Your task to perform on an android device: Open Google Image 0: 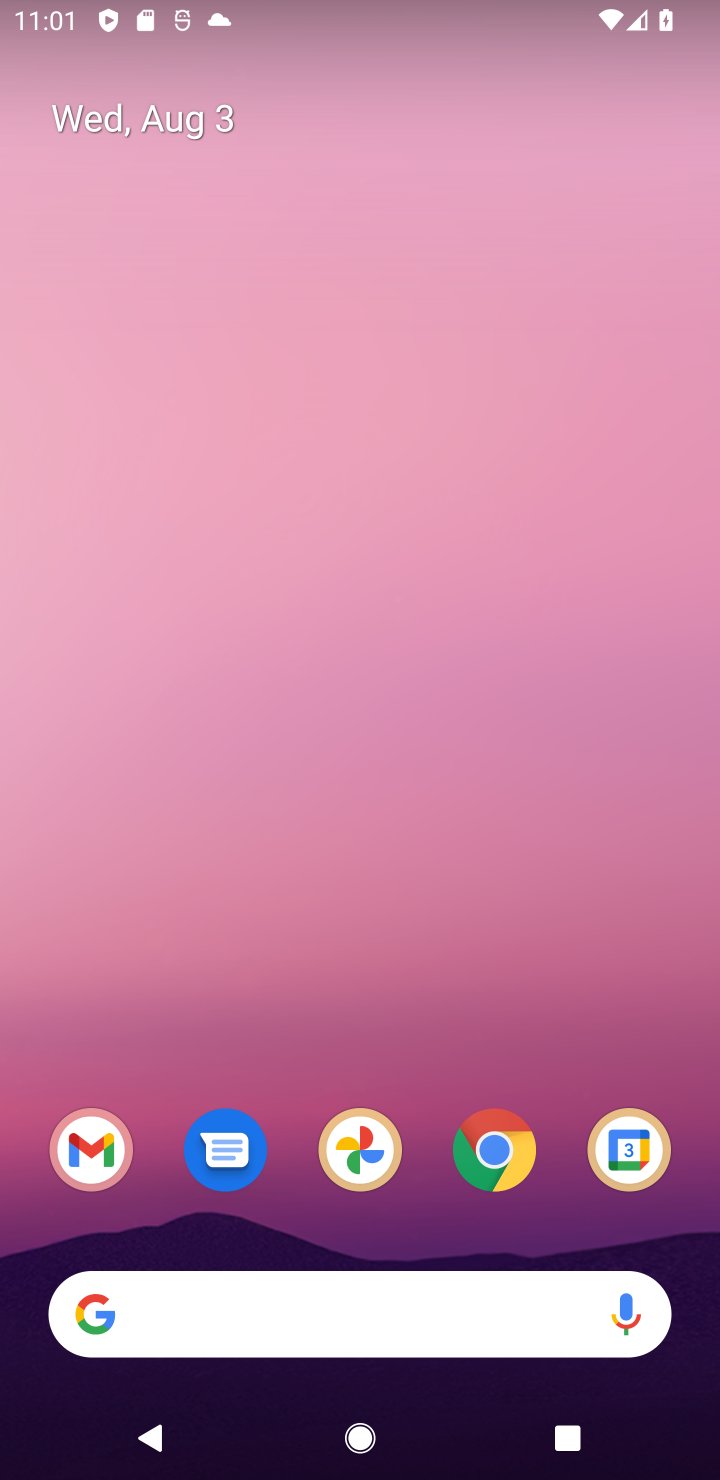
Step 0: press home button
Your task to perform on an android device: Open Google Image 1: 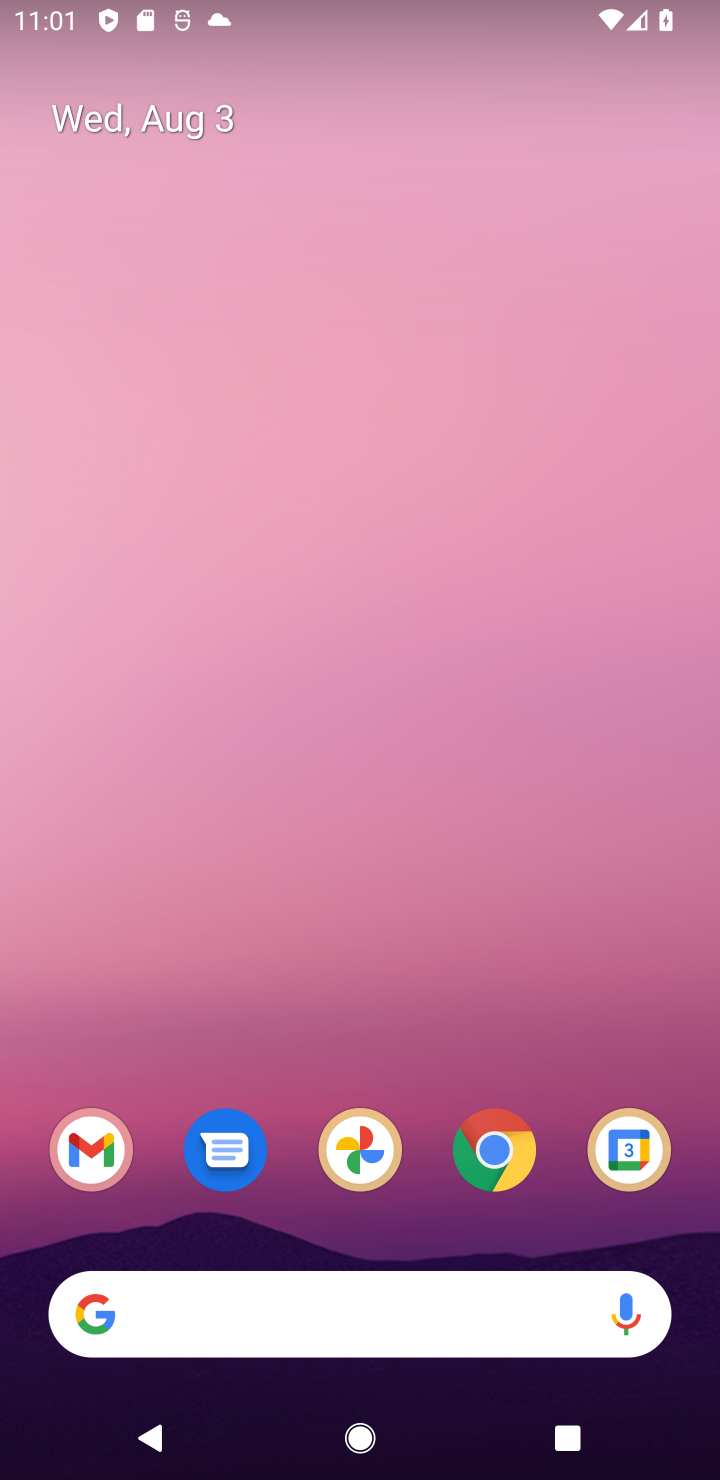
Step 1: drag from (570, 1068) to (568, 261)
Your task to perform on an android device: Open Google Image 2: 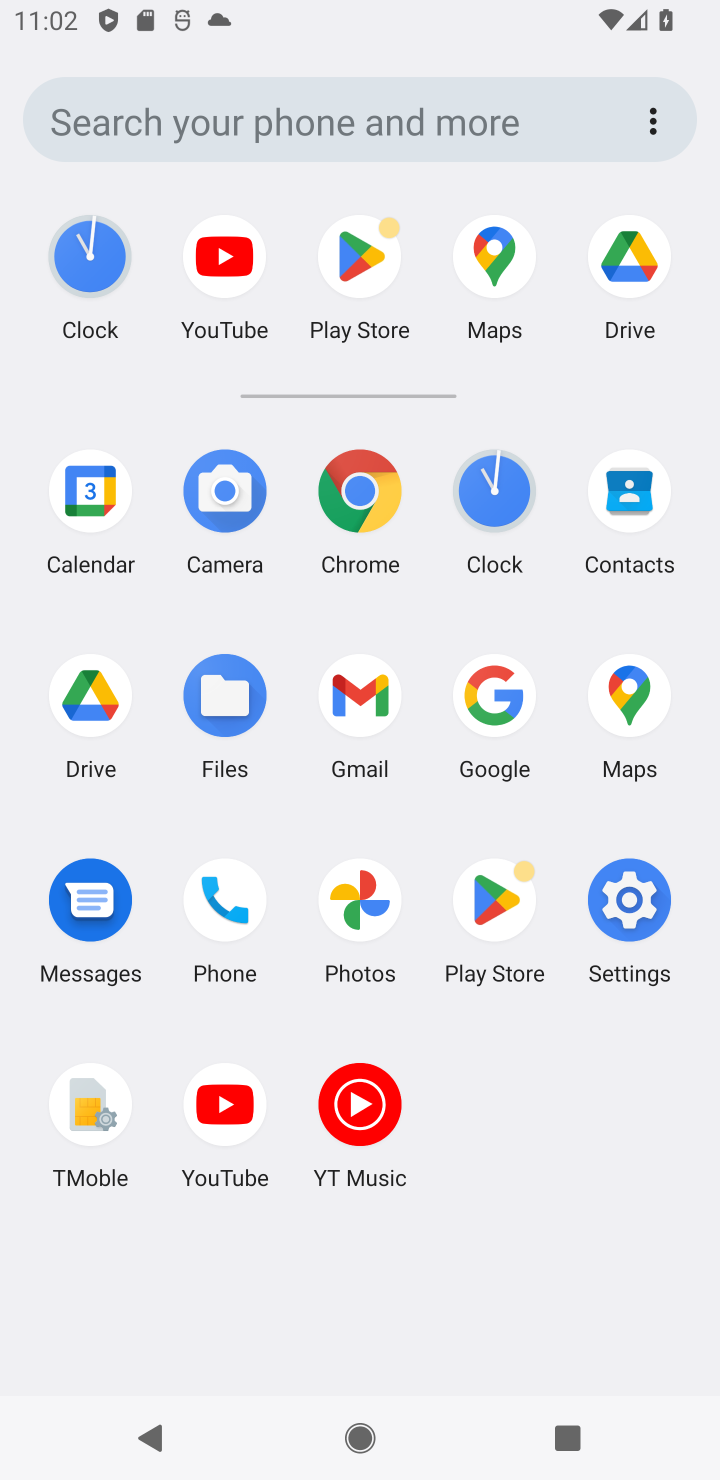
Step 2: click (517, 701)
Your task to perform on an android device: Open Google Image 3: 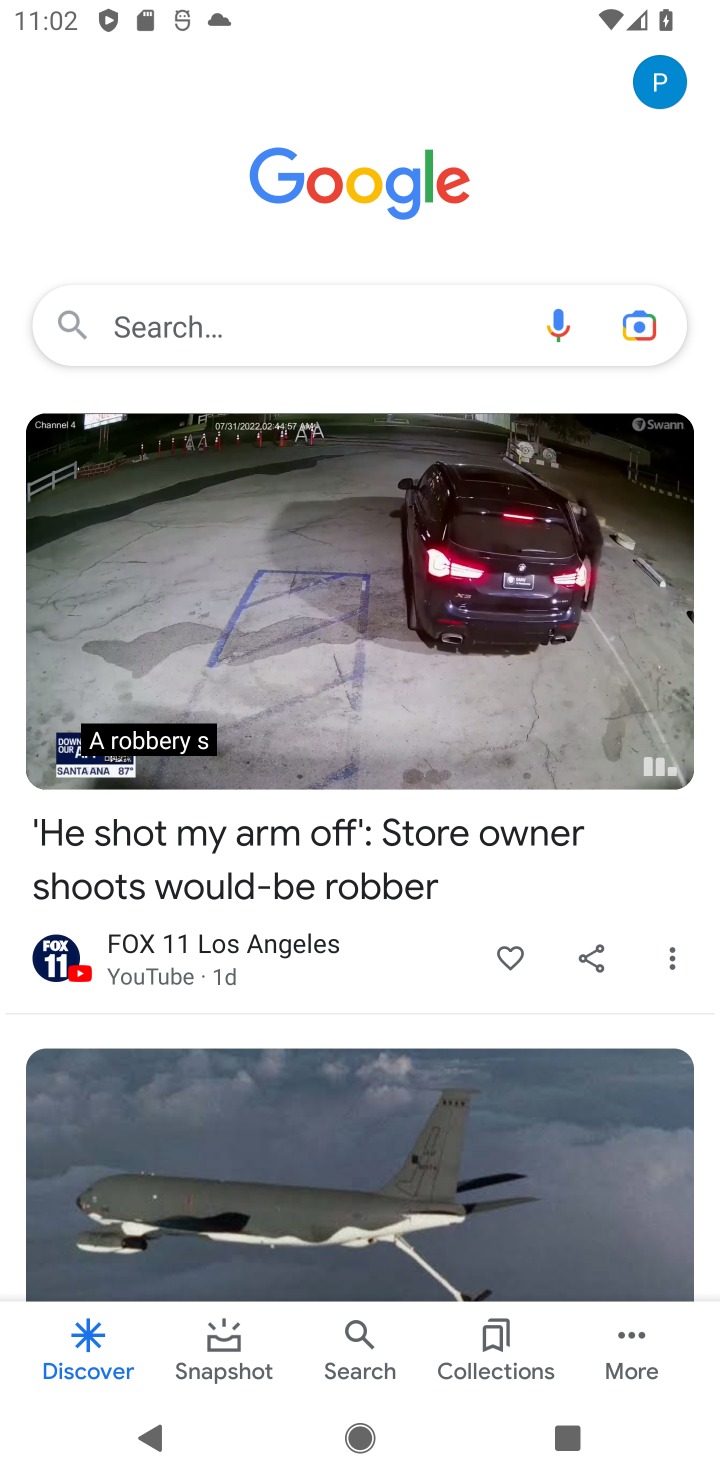
Step 3: task complete